Your task to perform on an android device: choose inbox layout in the gmail app Image 0: 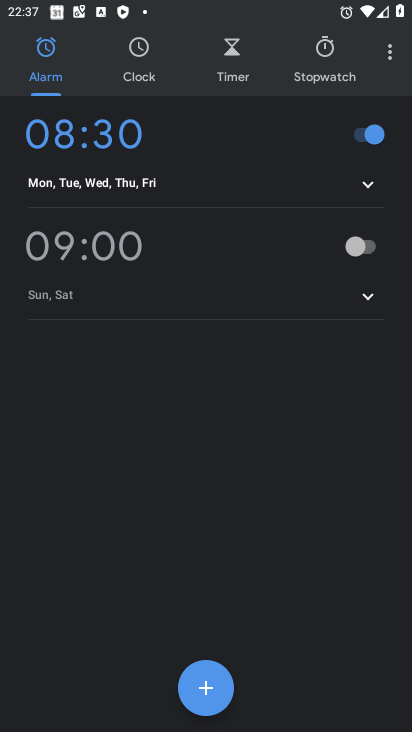
Step 0: press home button
Your task to perform on an android device: choose inbox layout in the gmail app Image 1: 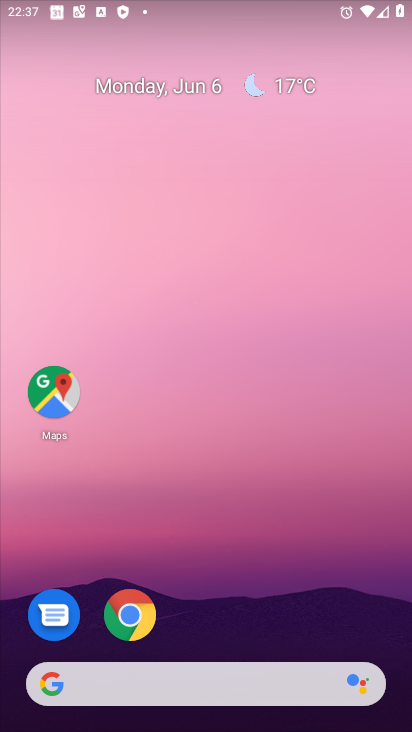
Step 1: drag from (403, 716) to (361, 95)
Your task to perform on an android device: choose inbox layout in the gmail app Image 2: 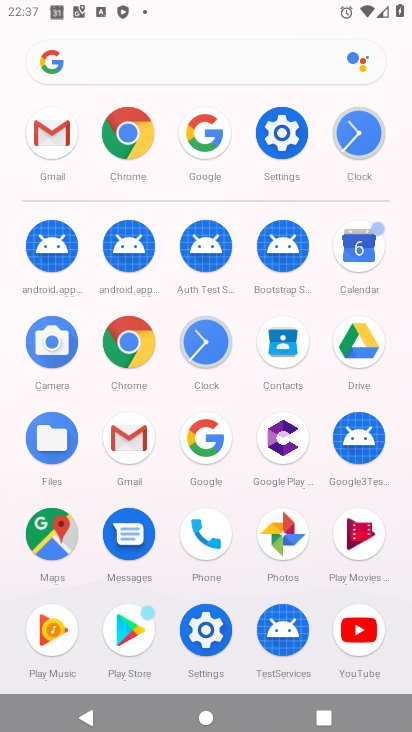
Step 2: click (63, 141)
Your task to perform on an android device: choose inbox layout in the gmail app Image 3: 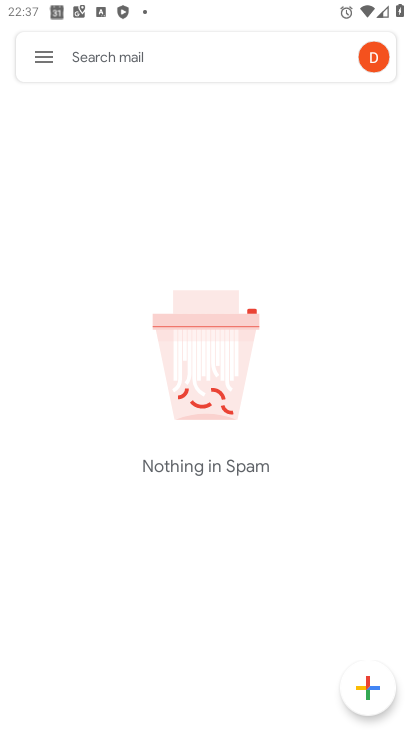
Step 3: click (58, 47)
Your task to perform on an android device: choose inbox layout in the gmail app Image 4: 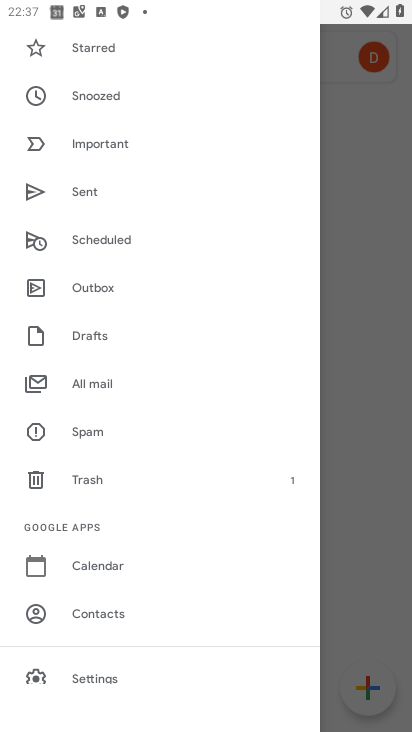
Step 4: drag from (154, 61) to (258, 593)
Your task to perform on an android device: choose inbox layout in the gmail app Image 5: 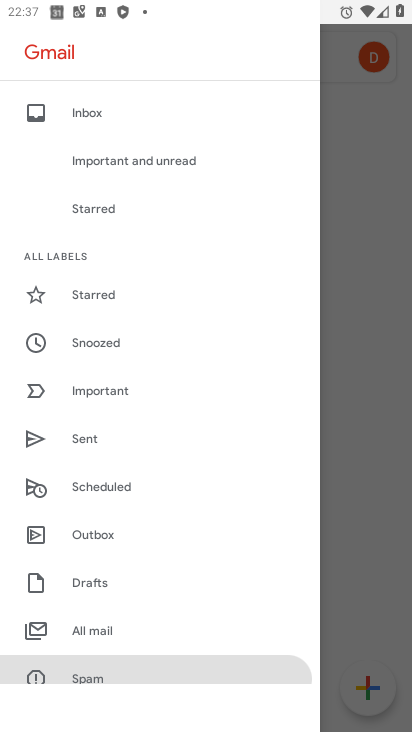
Step 5: click (101, 110)
Your task to perform on an android device: choose inbox layout in the gmail app Image 6: 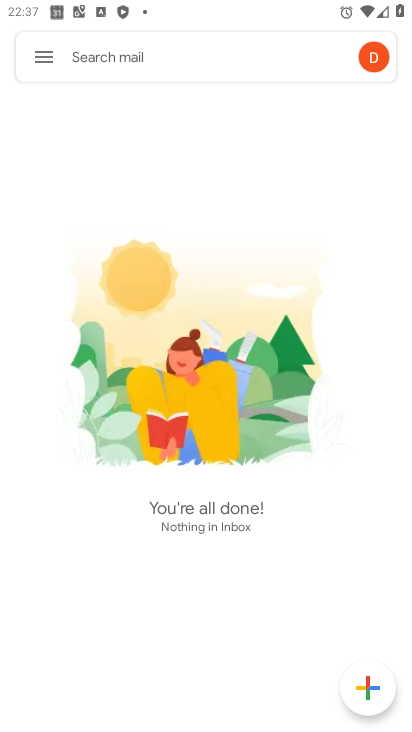
Step 6: task complete